Your task to perform on an android device: check storage Image 0: 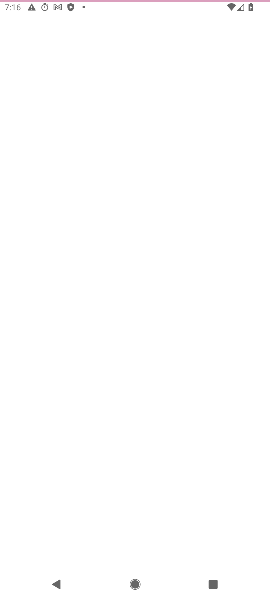
Step 0: click (168, 218)
Your task to perform on an android device: check storage Image 1: 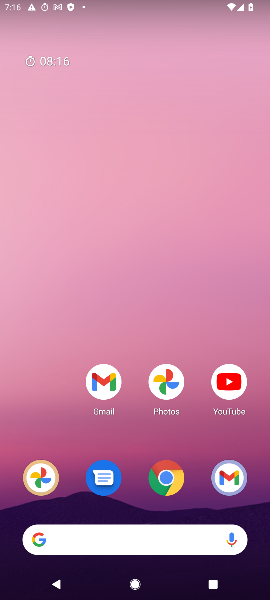
Step 1: drag from (125, 513) to (163, 113)
Your task to perform on an android device: check storage Image 2: 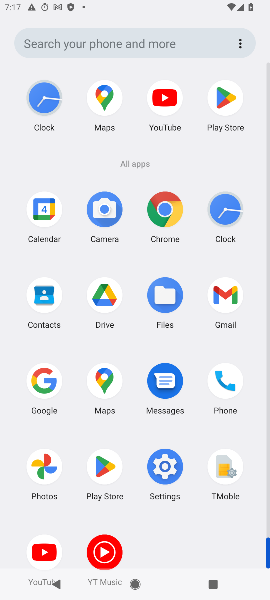
Step 2: click (161, 463)
Your task to perform on an android device: check storage Image 3: 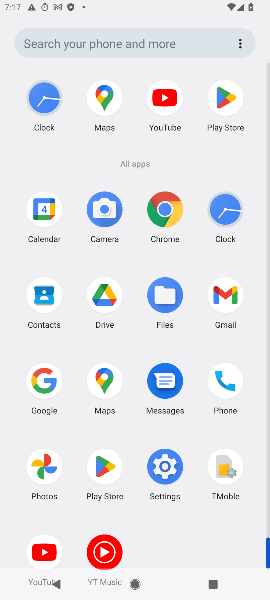
Step 3: click (161, 463)
Your task to perform on an android device: check storage Image 4: 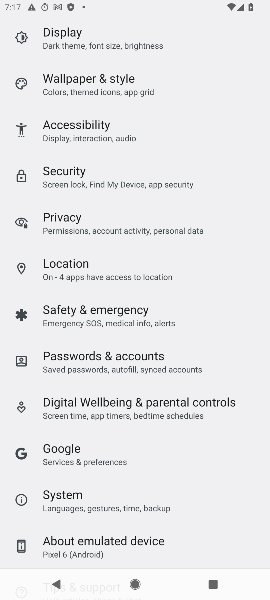
Step 4: drag from (91, 201) to (165, 597)
Your task to perform on an android device: check storage Image 5: 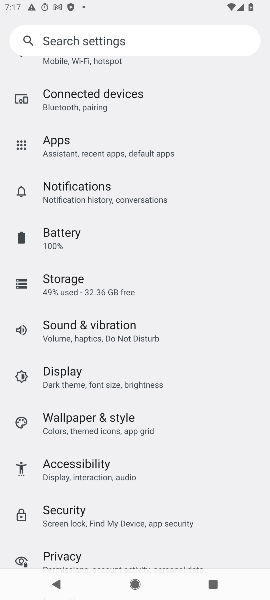
Step 5: click (75, 282)
Your task to perform on an android device: check storage Image 6: 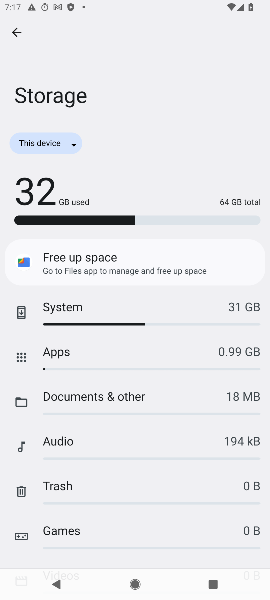
Step 6: task complete